Your task to perform on an android device: change the clock display to analog Image 0: 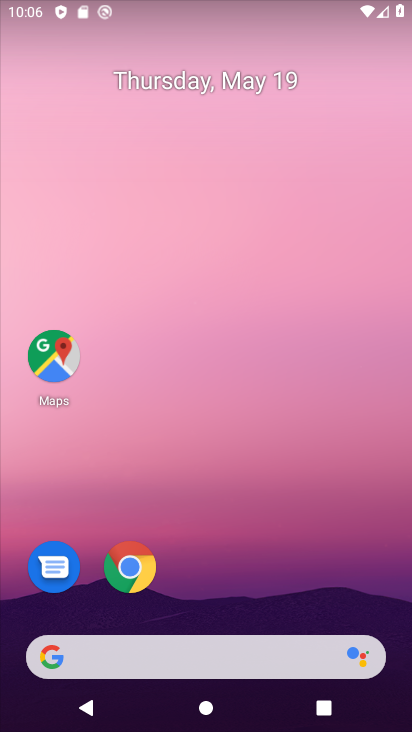
Step 0: drag from (275, 563) to (268, 49)
Your task to perform on an android device: change the clock display to analog Image 1: 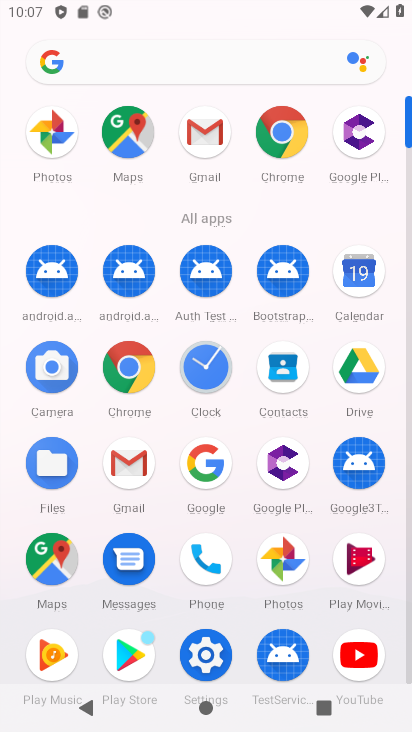
Step 1: click (213, 364)
Your task to perform on an android device: change the clock display to analog Image 2: 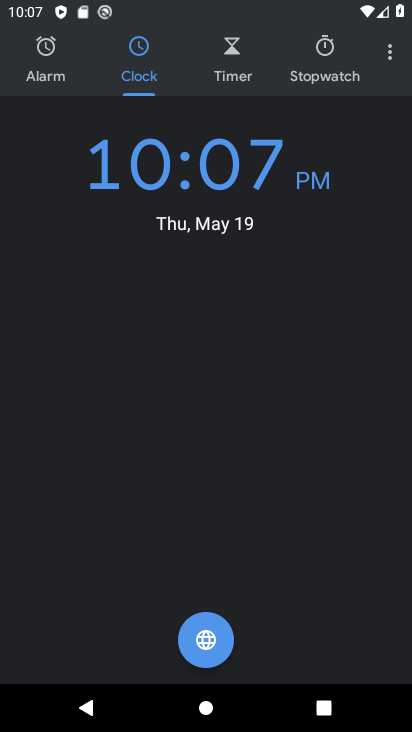
Step 2: click (388, 58)
Your task to perform on an android device: change the clock display to analog Image 3: 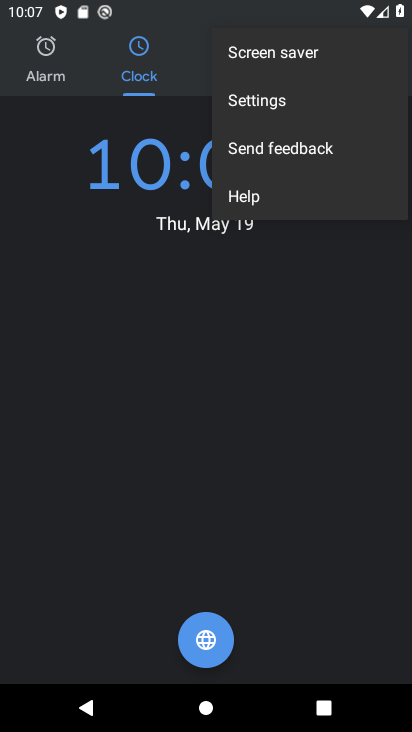
Step 3: click (328, 106)
Your task to perform on an android device: change the clock display to analog Image 4: 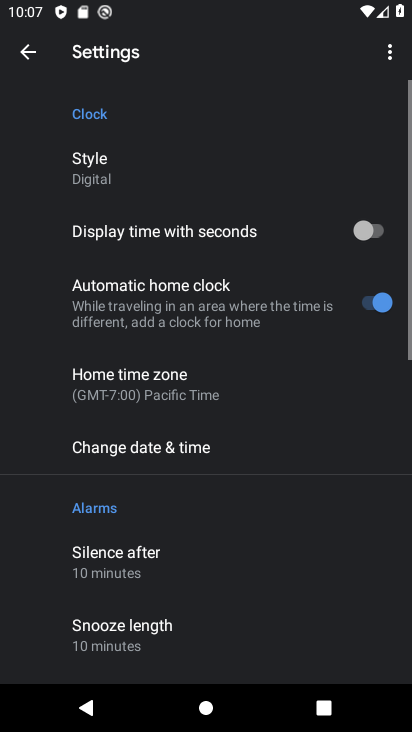
Step 4: click (127, 182)
Your task to perform on an android device: change the clock display to analog Image 5: 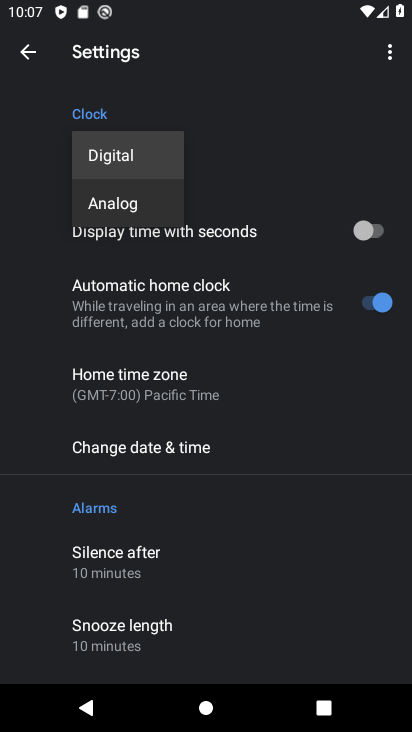
Step 5: click (145, 208)
Your task to perform on an android device: change the clock display to analog Image 6: 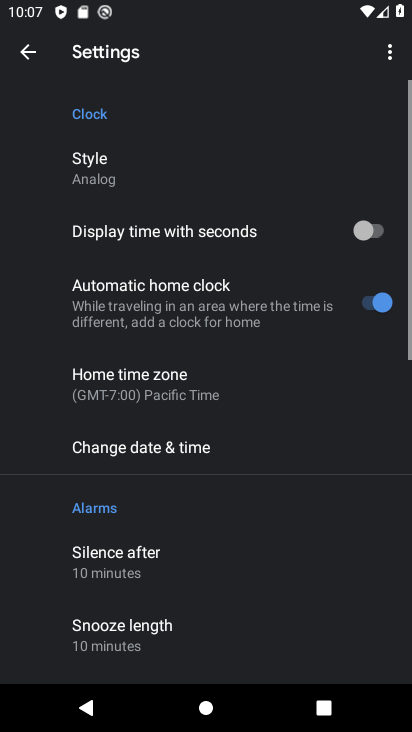
Step 6: task complete